Your task to perform on an android device: Open wifi settings Image 0: 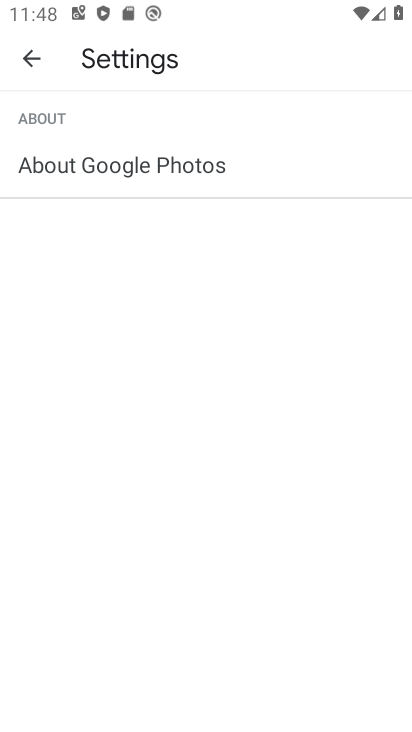
Step 0: drag from (179, 12) to (185, 573)
Your task to perform on an android device: Open wifi settings Image 1: 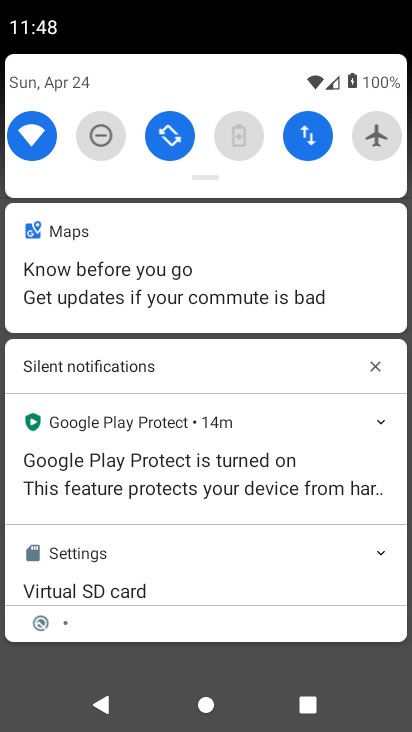
Step 1: click (33, 144)
Your task to perform on an android device: Open wifi settings Image 2: 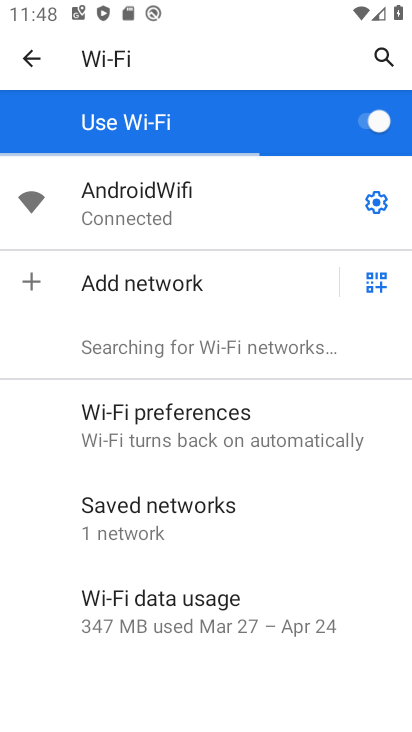
Step 2: task complete